Your task to perform on an android device: Show me popular games on the Play Store Image 0: 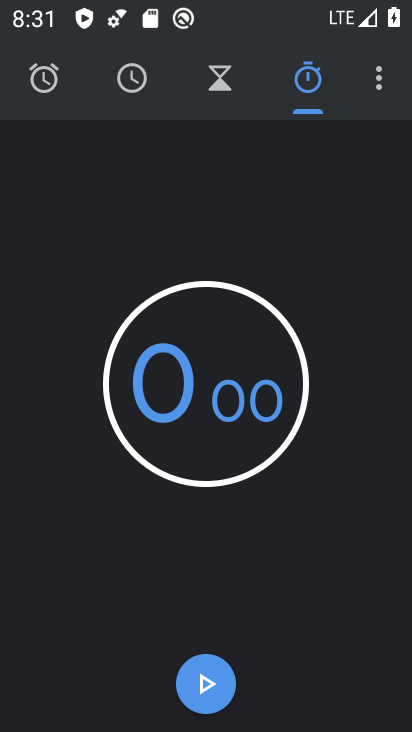
Step 0: press home button
Your task to perform on an android device: Show me popular games on the Play Store Image 1: 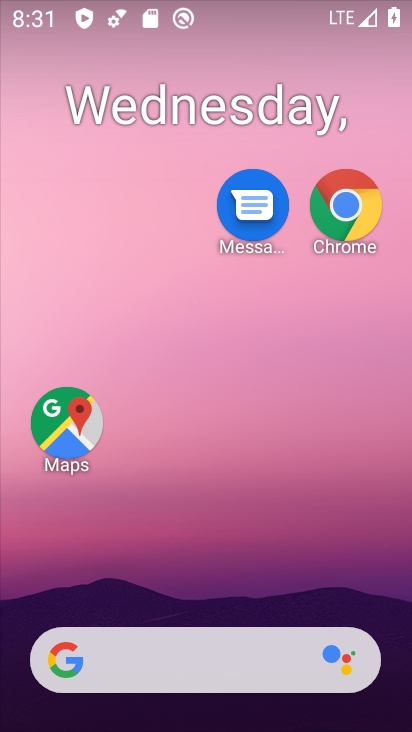
Step 1: drag from (171, 590) to (122, 36)
Your task to perform on an android device: Show me popular games on the Play Store Image 2: 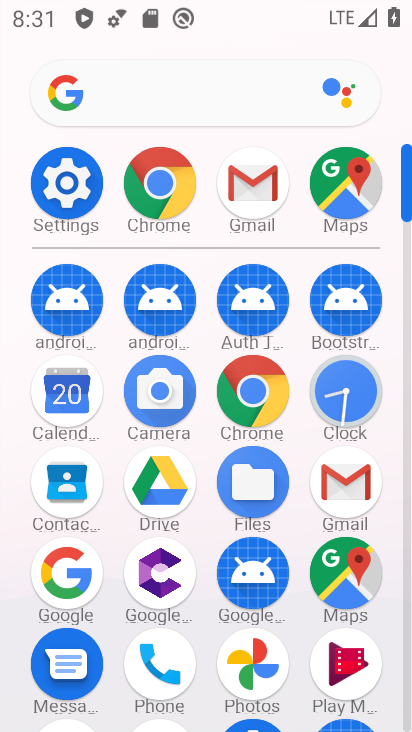
Step 2: drag from (200, 644) to (182, 285)
Your task to perform on an android device: Show me popular games on the Play Store Image 3: 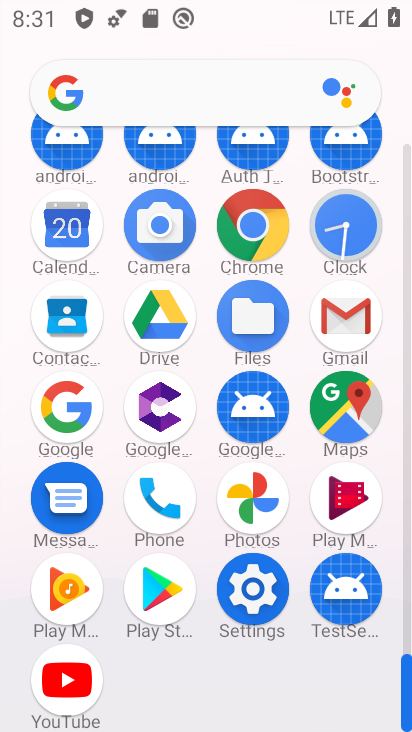
Step 3: click (171, 582)
Your task to perform on an android device: Show me popular games on the Play Store Image 4: 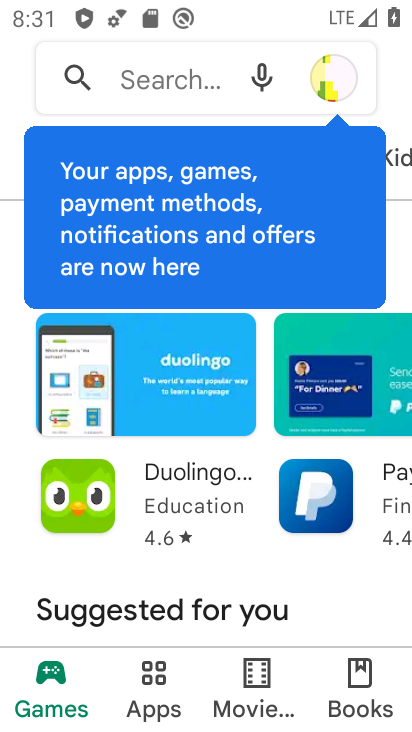
Step 4: click (403, 167)
Your task to perform on an android device: Show me popular games on the Play Store Image 5: 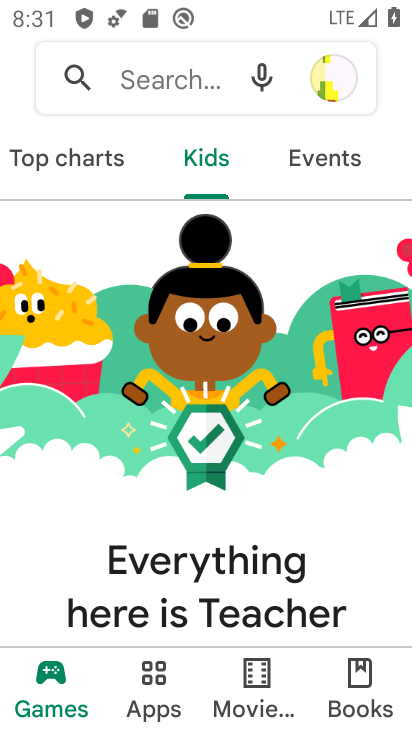
Step 5: drag from (390, 158) to (0, 170)
Your task to perform on an android device: Show me popular games on the Play Store Image 6: 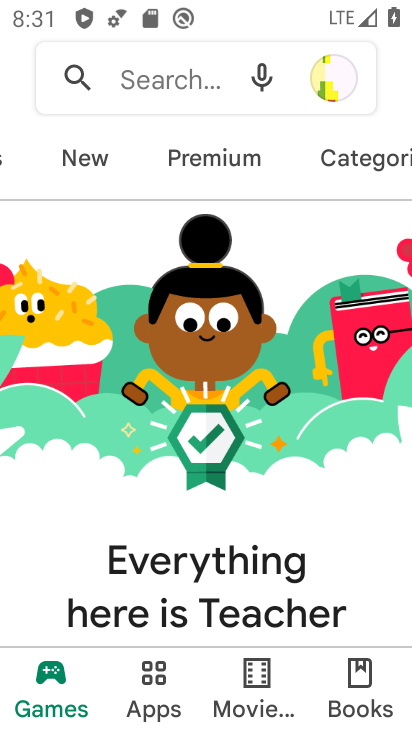
Step 6: drag from (347, 159) to (0, 193)
Your task to perform on an android device: Show me popular games on the Play Store Image 7: 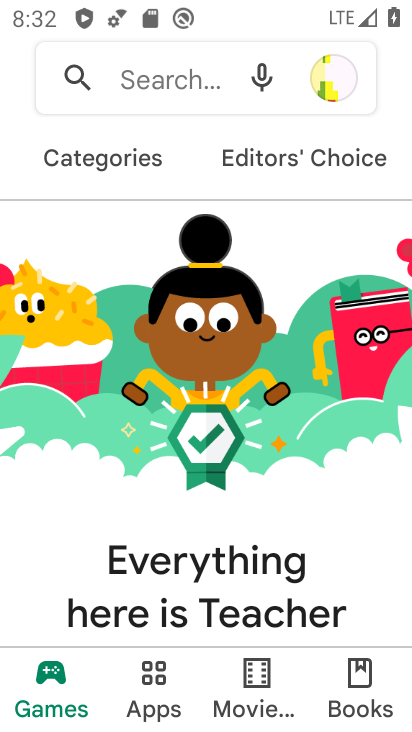
Step 7: click (87, 157)
Your task to perform on an android device: Show me popular games on the Play Store Image 8: 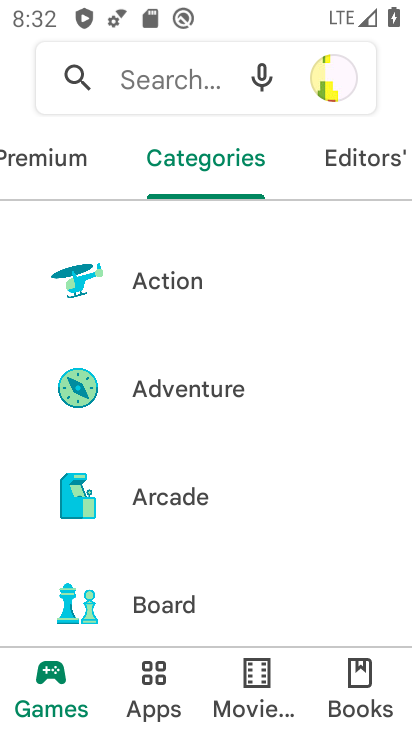
Step 8: drag from (214, 565) to (407, 139)
Your task to perform on an android device: Show me popular games on the Play Store Image 9: 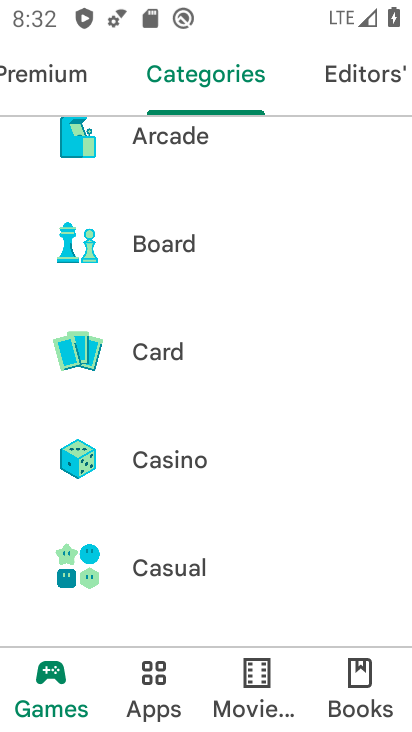
Step 9: drag from (229, 544) to (405, 72)
Your task to perform on an android device: Show me popular games on the Play Store Image 10: 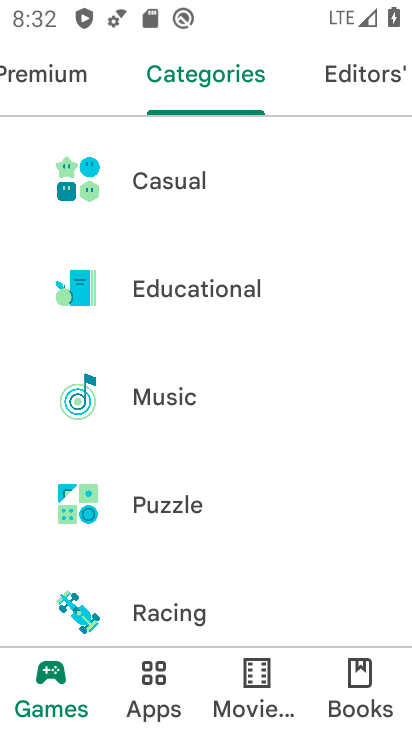
Step 10: drag from (174, 589) to (232, 195)
Your task to perform on an android device: Show me popular games on the Play Store Image 11: 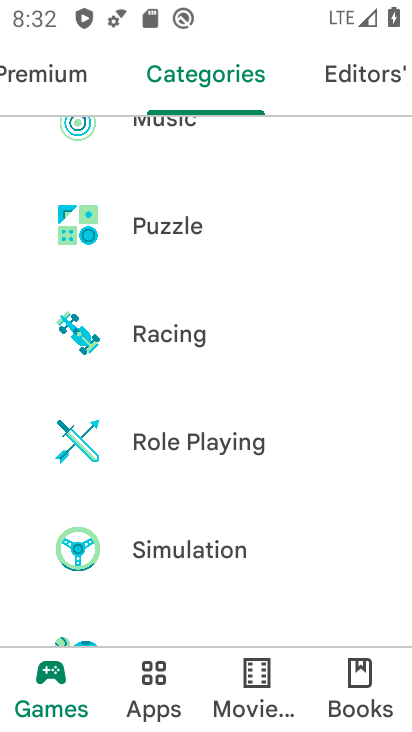
Step 11: drag from (186, 524) to (351, 89)
Your task to perform on an android device: Show me popular games on the Play Store Image 12: 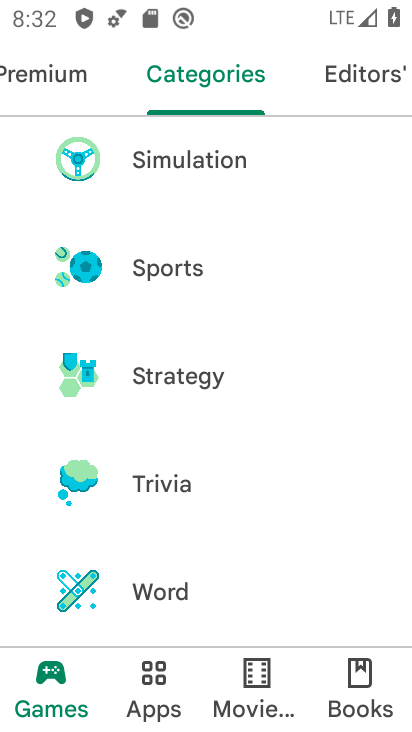
Step 12: drag from (362, 84) to (30, 106)
Your task to perform on an android device: Show me popular games on the Play Store Image 13: 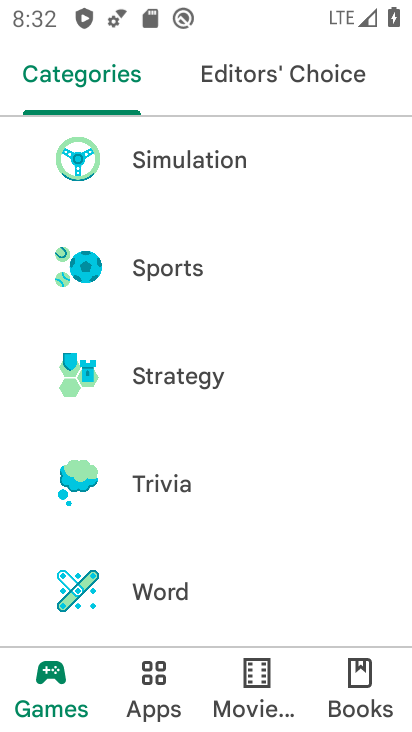
Step 13: drag from (296, 77) to (2, 198)
Your task to perform on an android device: Show me popular games on the Play Store Image 14: 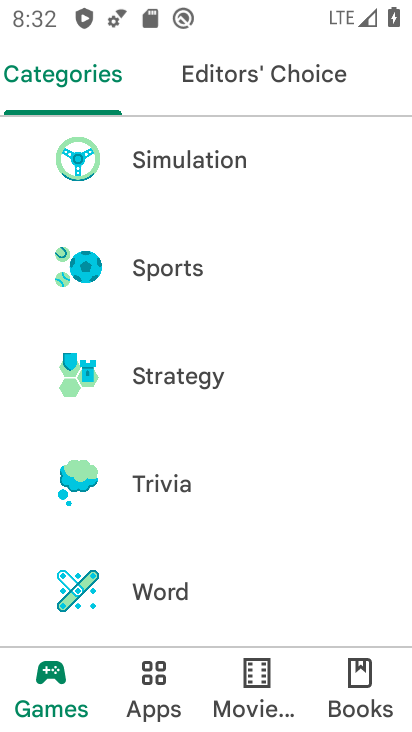
Step 14: click (245, 677)
Your task to perform on an android device: Show me popular games on the Play Store Image 15: 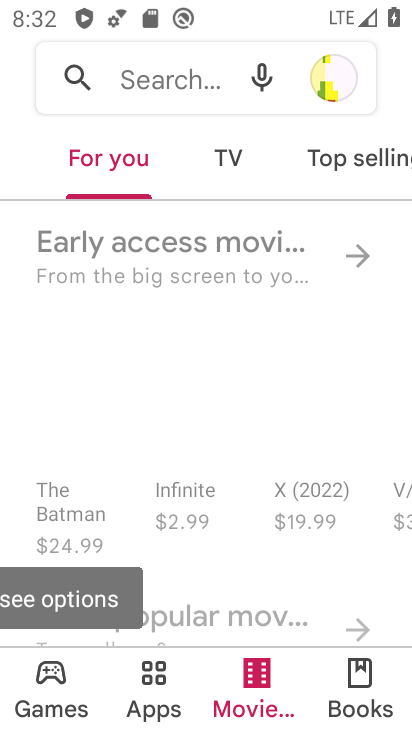
Step 15: click (155, 686)
Your task to perform on an android device: Show me popular games on the Play Store Image 16: 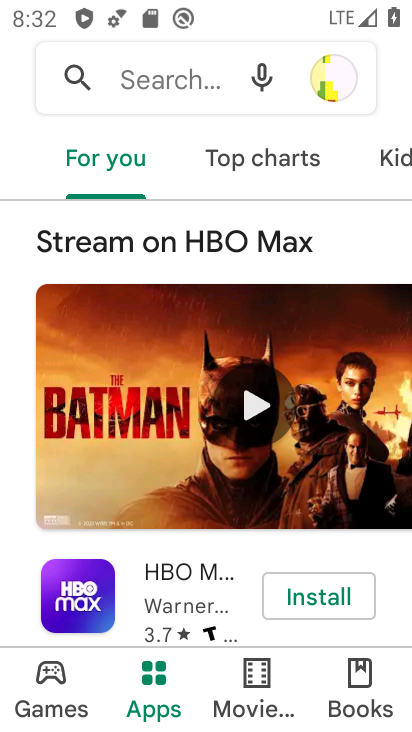
Step 16: task complete